Your task to perform on an android device: Empty the shopping cart on newegg.com. Search for razer nari on newegg.com, select the first entry, add it to the cart, then select checkout. Image 0: 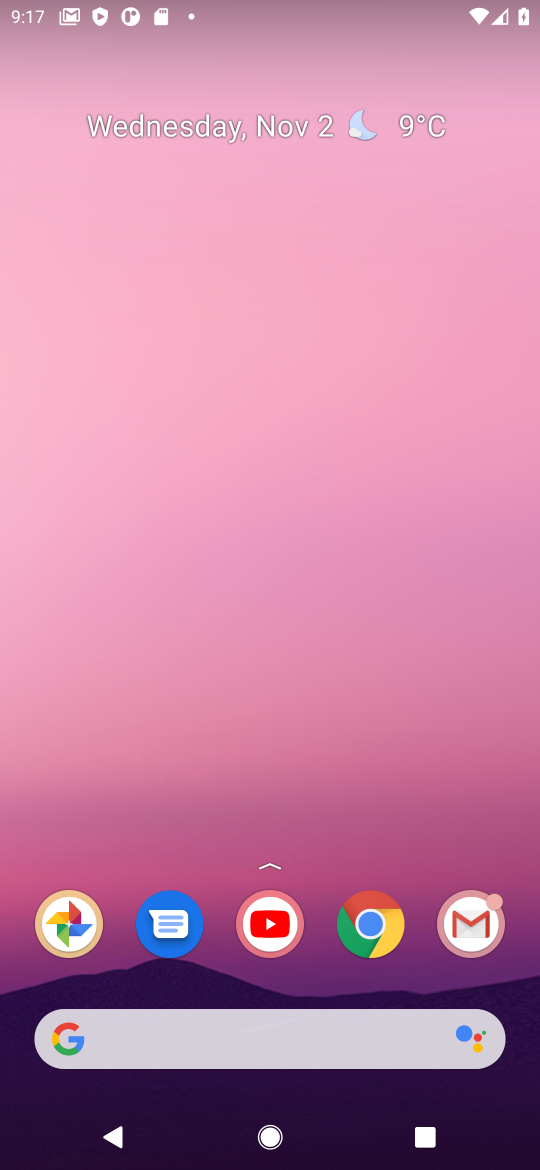
Step 0: click (371, 943)
Your task to perform on an android device: Empty the shopping cart on newegg.com. Search for razer nari on newegg.com, select the first entry, add it to the cart, then select checkout. Image 1: 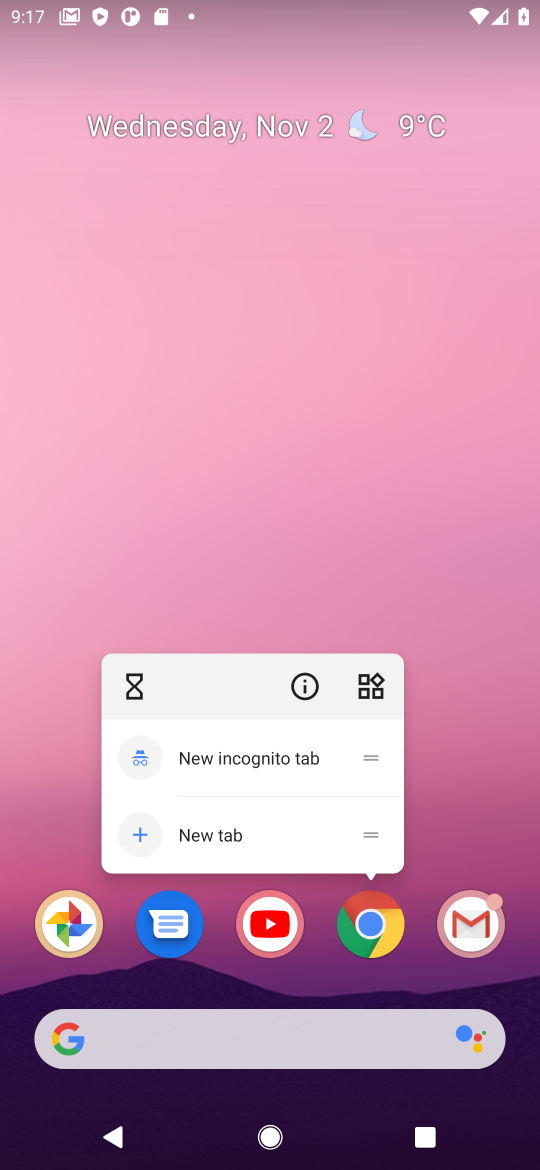
Step 1: click (371, 940)
Your task to perform on an android device: Empty the shopping cart on newegg.com. Search for razer nari on newegg.com, select the first entry, add it to the cart, then select checkout. Image 2: 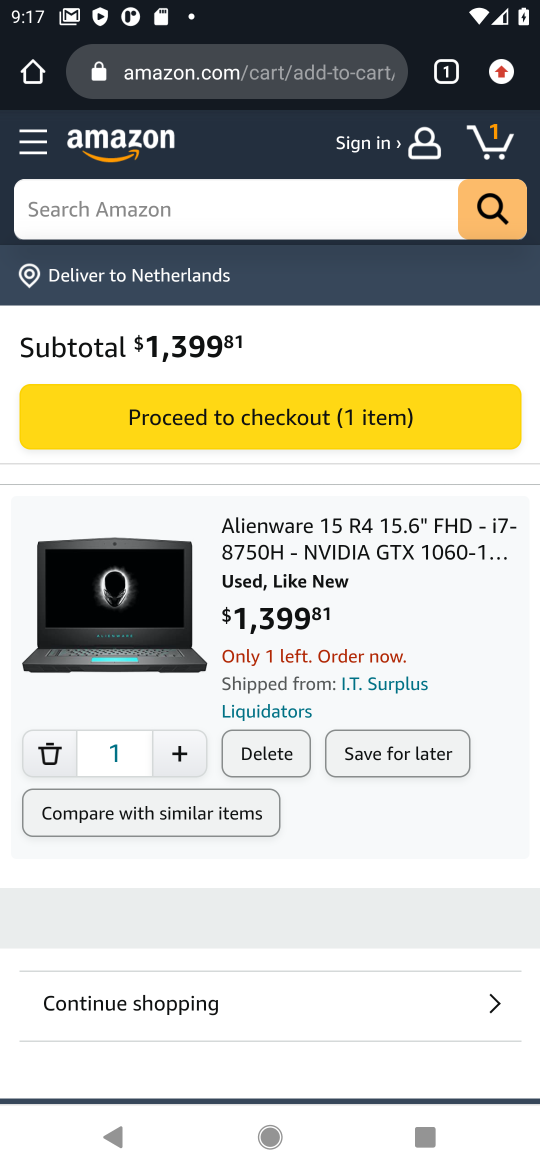
Step 2: click (217, 78)
Your task to perform on an android device: Empty the shopping cart on newegg.com. Search for razer nari on newegg.com, select the first entry, add it to the cart, then select checkout. Image 3: 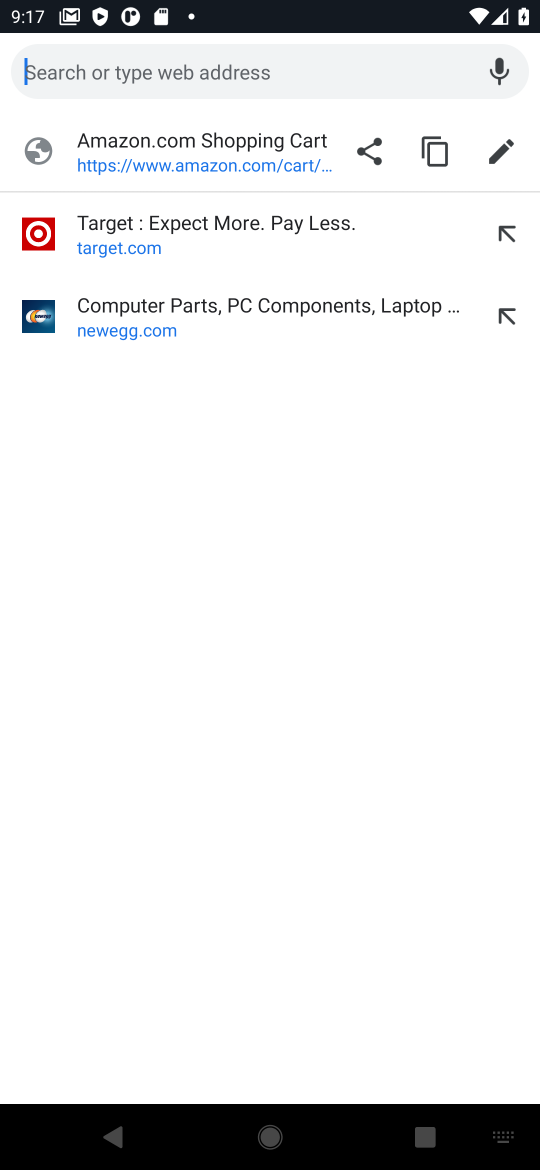
Step 3: type "newegg"
Your task to perform on an android device: Empty the shopping cart on newegg.com. Search for razer nari on newegg.com, select the first entry, add it to the cart, then select checkout. Image 4: 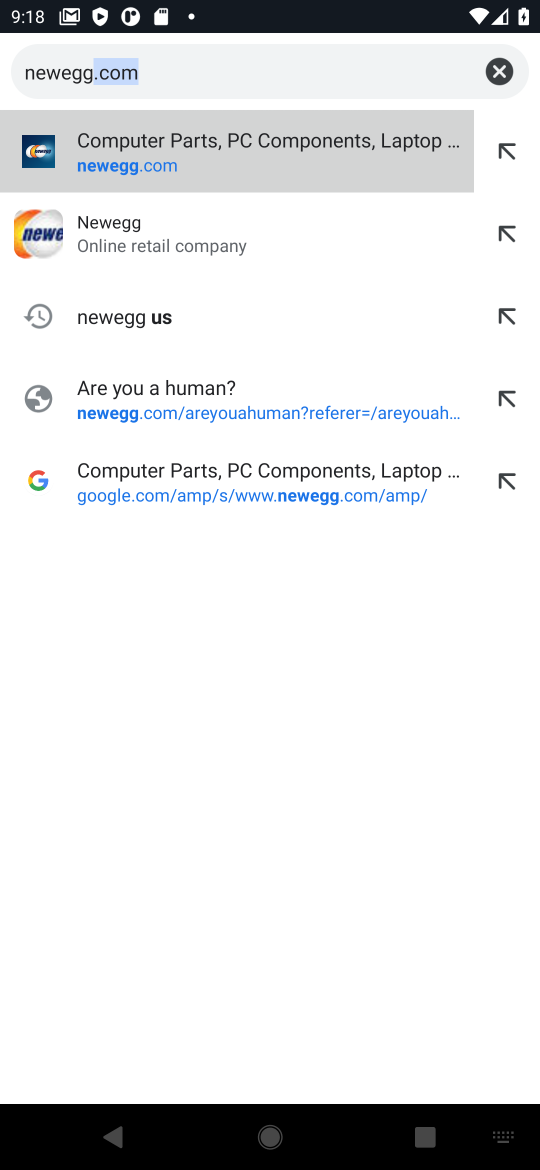
Step 4: click (101, 244)
Your task to perform on an android device: Empty the shopping cart on newegg.com. Search for razer nari on newegg.com, select the first entry, add it to the cart, then select checkout. Image 5: 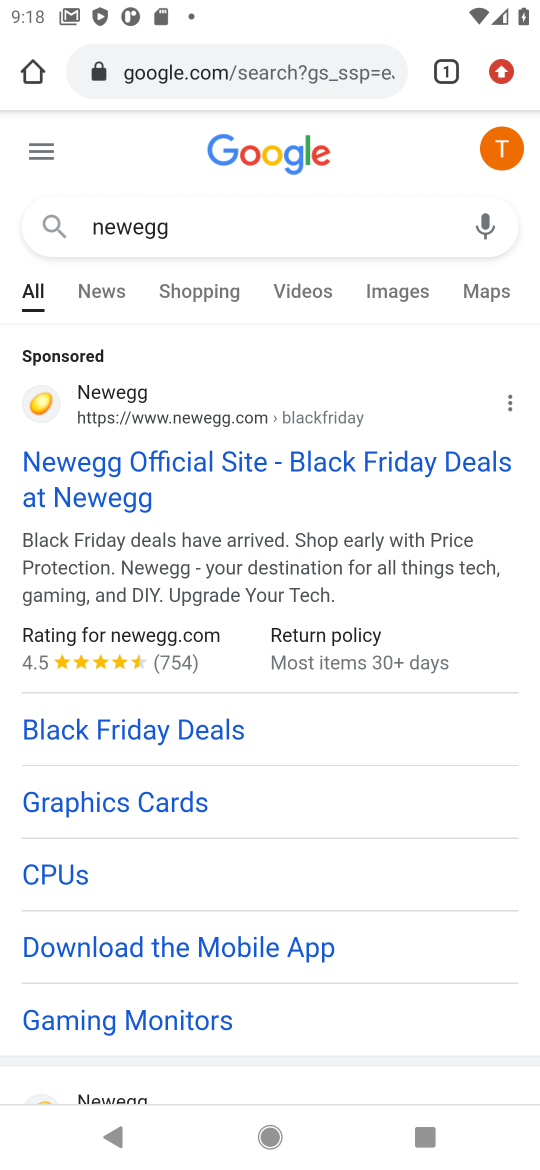
Step 5: drag from (223, 658) to (273, 221)
Your task to perform on an android device: Empty the shopping cart on newegg.com. Search for razer nari on newegg.com, select the first entry, add it to the cart, then select checkout. Image 6: 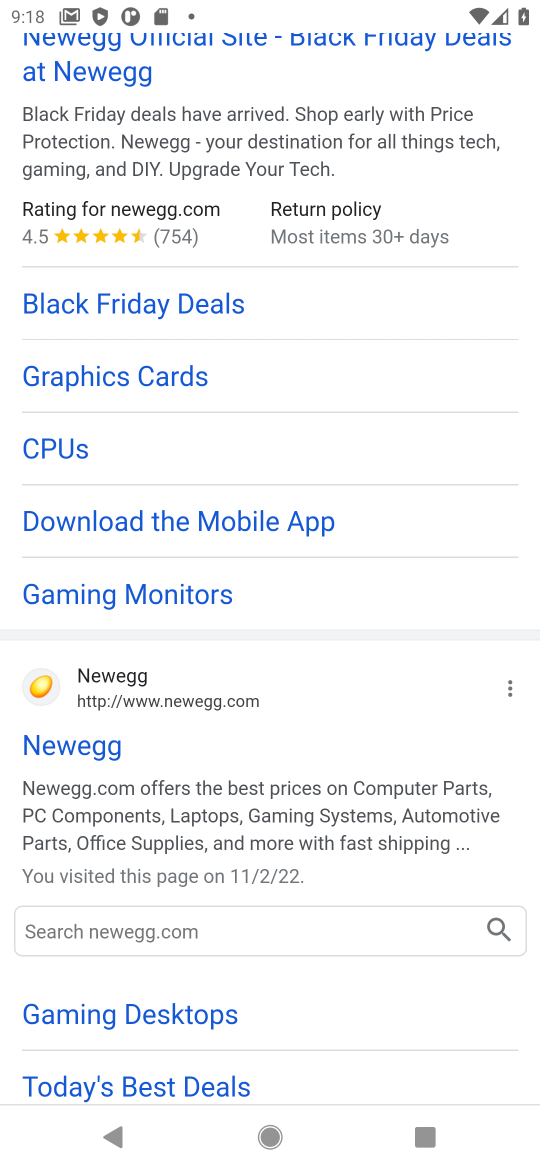
Step 6: click (84, 741)
Your task to perform on an android device: Empty the shopping cart on newegg.com. Search for razer nari on newegg.com, select the first entry, add it to the cart, then select checkout. Image 7: 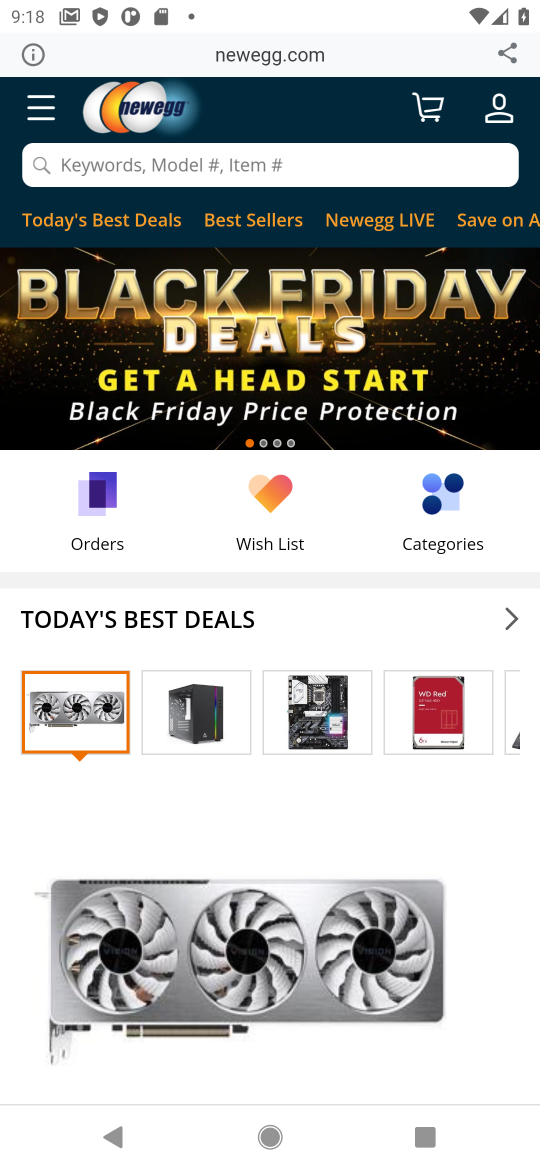
Step 7: click (229, 172)
Your task to perform on an android device: Empty the shopping cart on newegg.com. Search for razer nari on newegg.com, select the first entry, add it to the cart, then select checkout. Image 8: 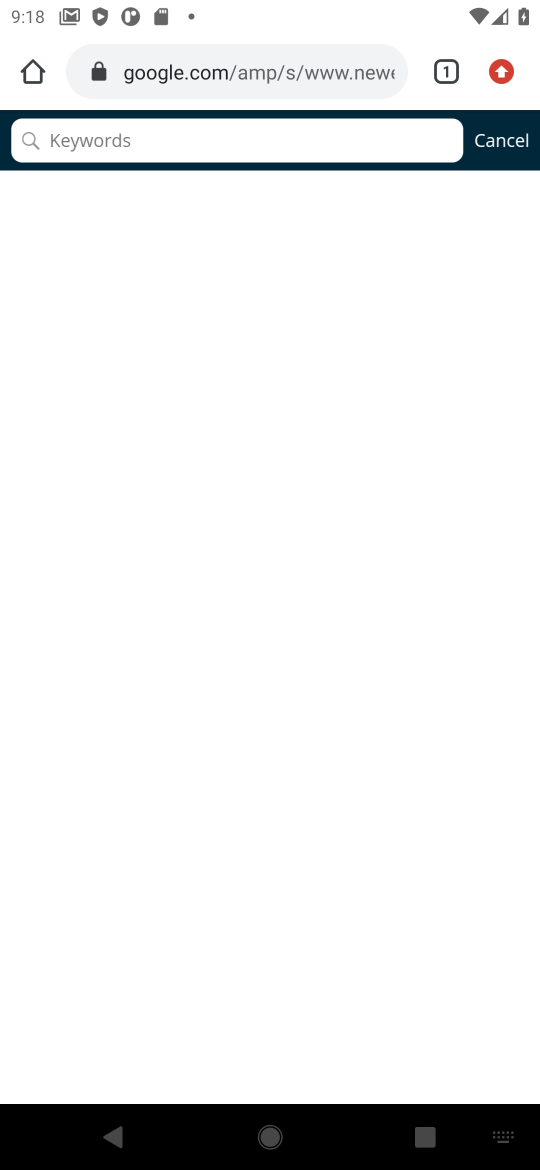
Step 8: type "razer nari"
Your task to perform on an android device: Empty the shopping cart on newegg.com. Search for razer nari on newegg.com, select the first entry, add it to the cart, then select checkout. Image 9: 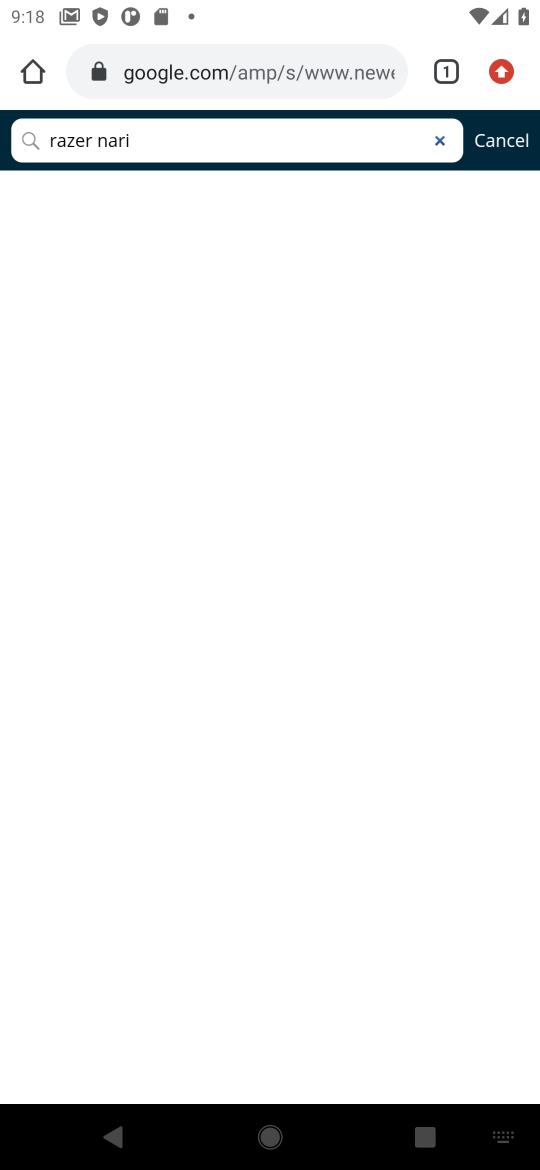
Step 9: click (34, 141)
Your task to perform on an android device: Empty the shopping cart on newegg.com. Search for razer nari on newegg.com, select the first entry, add it to the cart, then select checkout. Image 10: 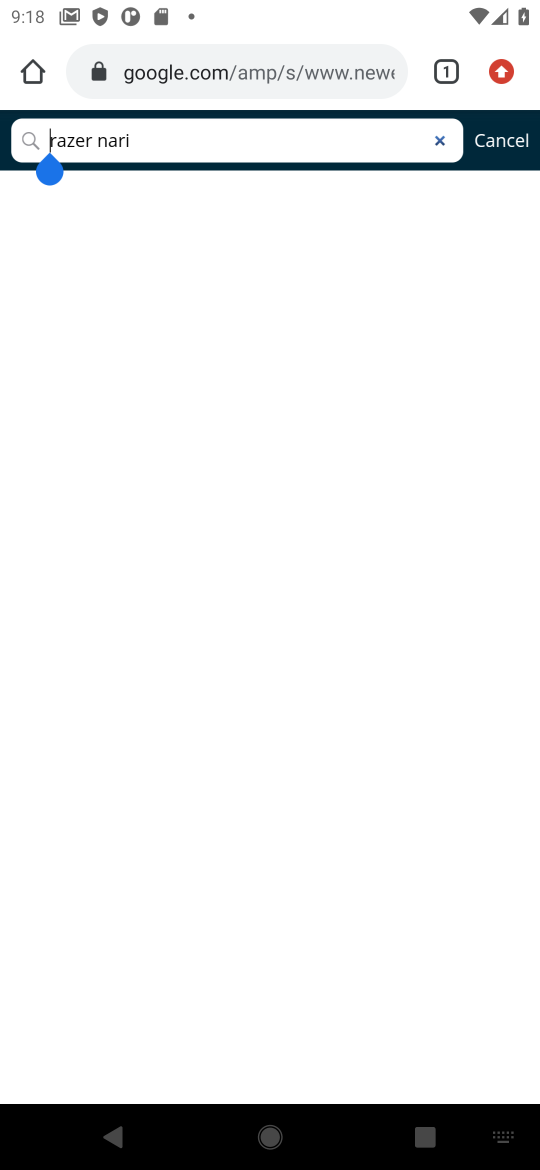
Step 10: click (157, 150)
Your task to perform on an android device: Empty the shopping cart on newegg.com. Search for razer nari on newegg.com, select the first entry, add it to the cart, then select checkout. Image 11: 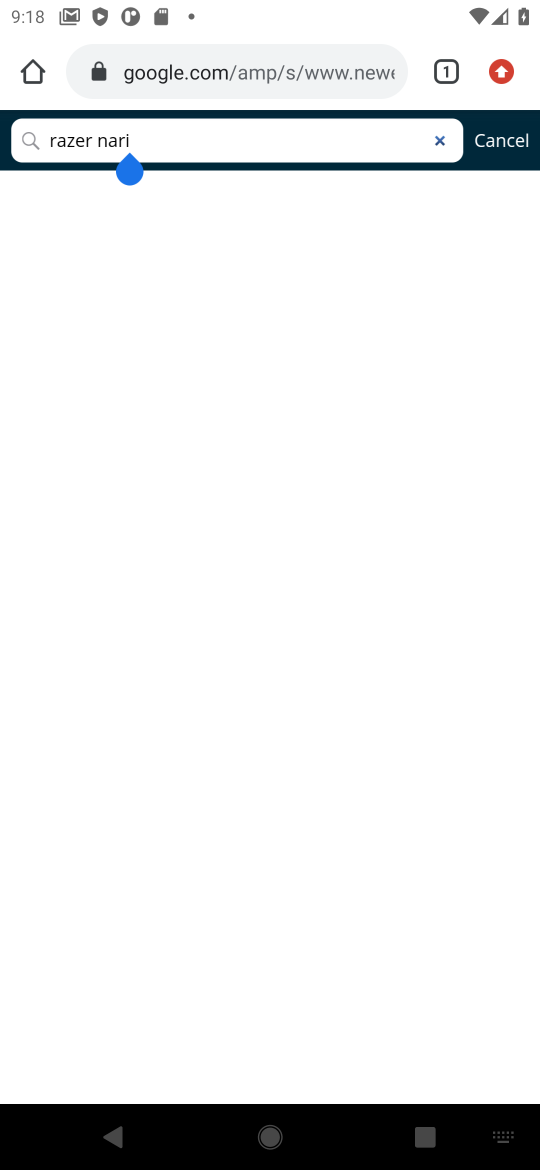
Step 11: click (442, 145)
Your task to perform on an android device: Empty the shopping cart on newegg.com. Search for razer nari on newegg.com, select the first entry, add it to the cart, then select checkout. Image 12: 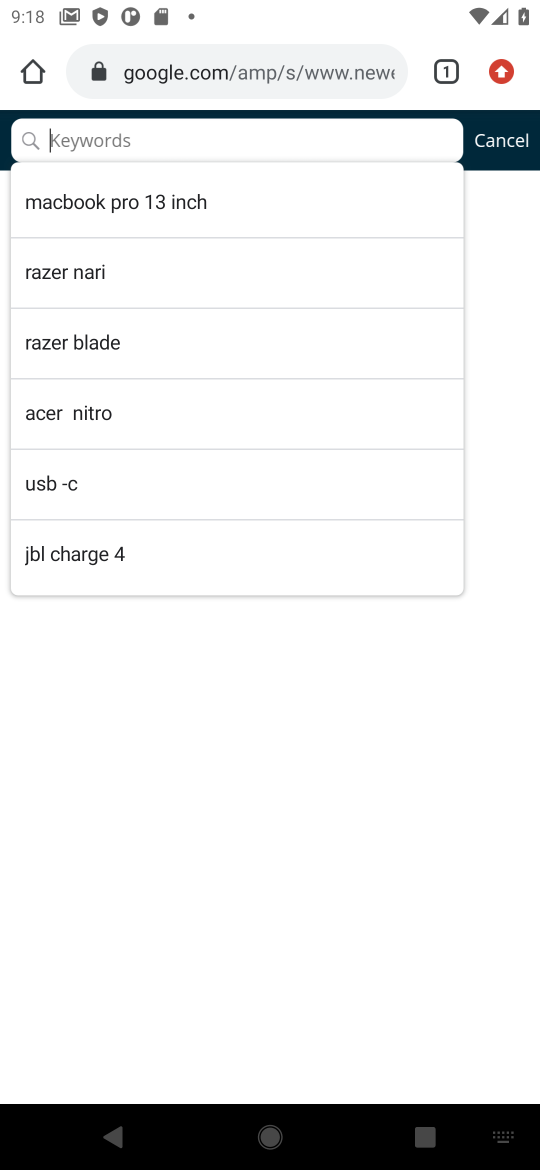
Step 12: click (70, 339)
Your task to perform on an android device: Empty the shopping cart on newegg.com. Search for razer nari on newegg.com, select the first entry, add it to the cart, then select checkout. Image 13: 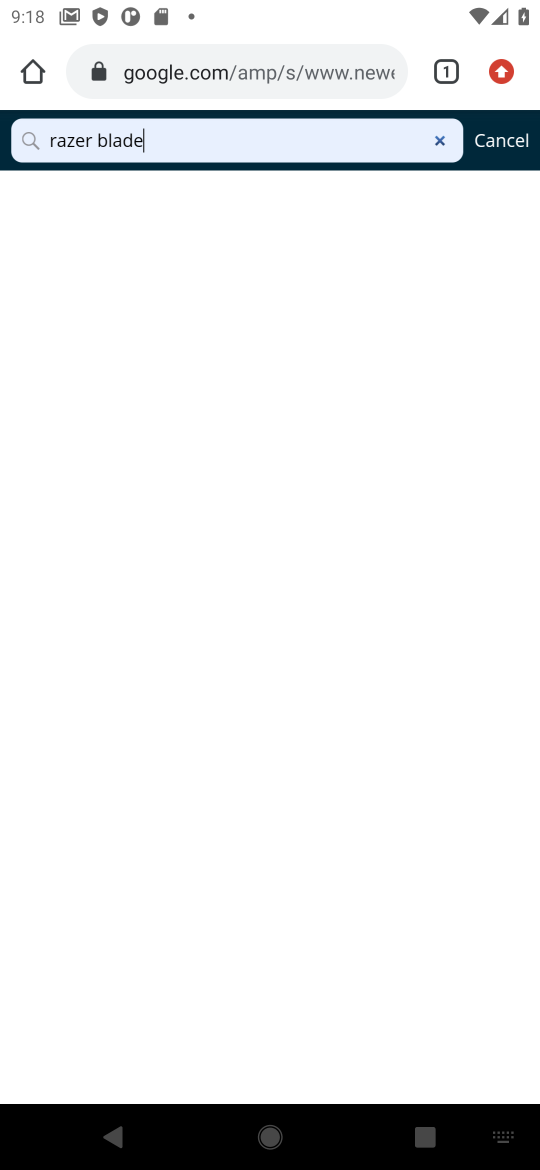
Step 13: click (208, 124)
Your task to perform on an android device: Empty the shopping cart on newegg.com. Search for razer nari on newegg.com, select the first entry, add it to the cart, then select checkout. Image 14: 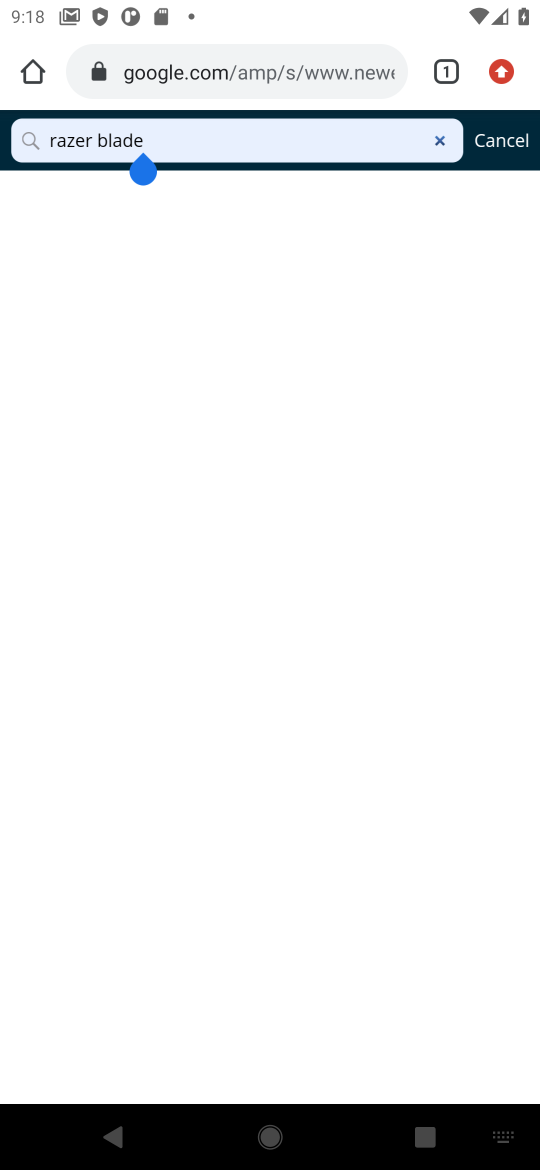
Step 14: press back button
Your task to perform on an android device: Empty the shopping cart on newegg.com. Search for razer nari on newegg.com, select the first entry, add it to the cart, then select checkout. Image 15: 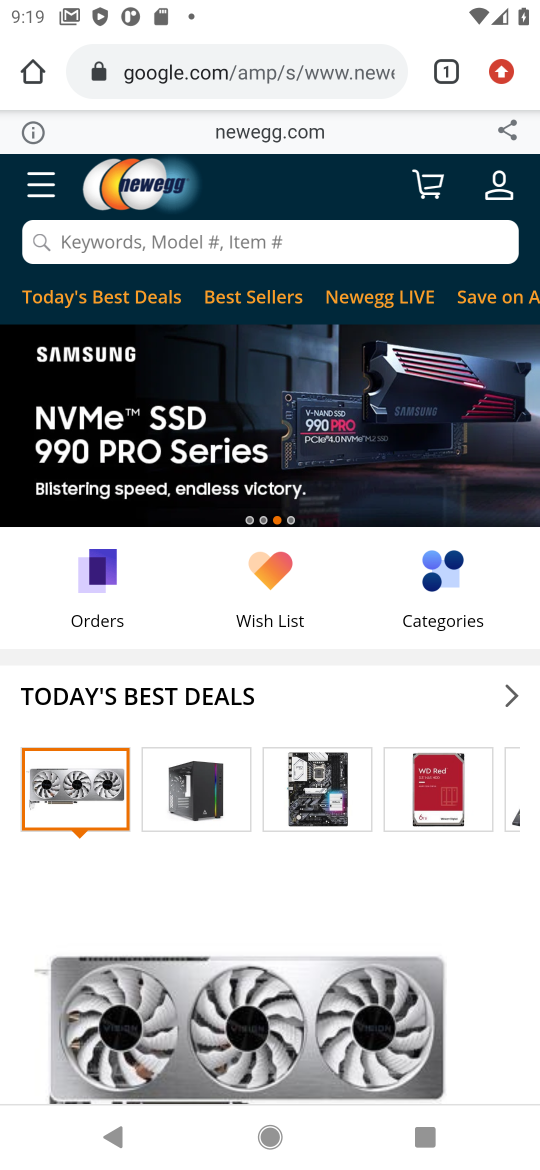
Step 15: click (230, 299)
Your task to perform on an android device: Empty the shopping cart on newegg.com. Search for razer nari on newegg.com, select the first entry, add it to the cart, then select checkout. Image 16: 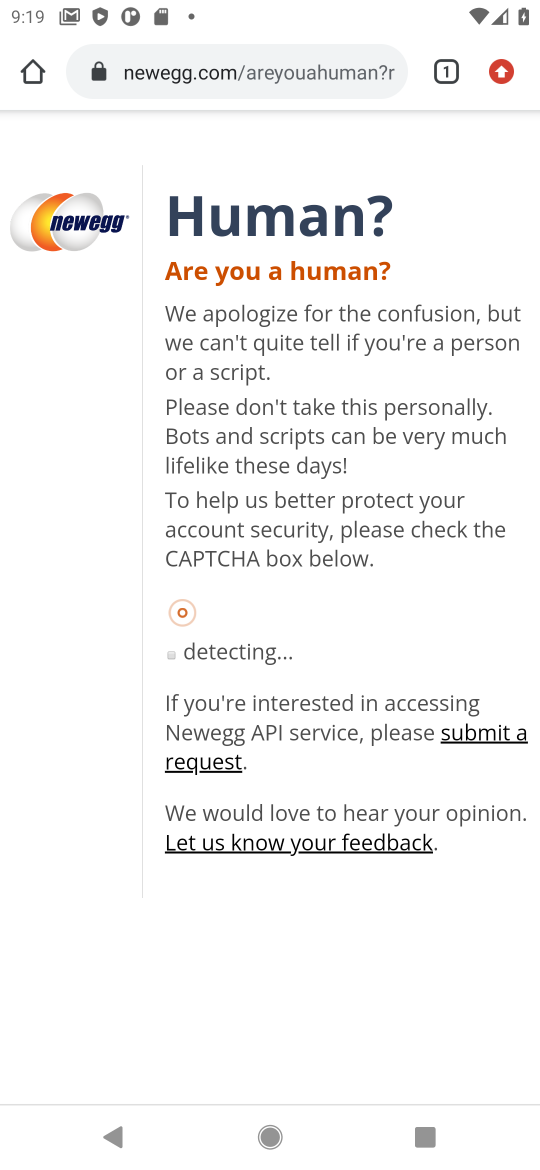
Step 16: task complete